Your task to perform on an android device: change your default location settings in chrome Image 0: 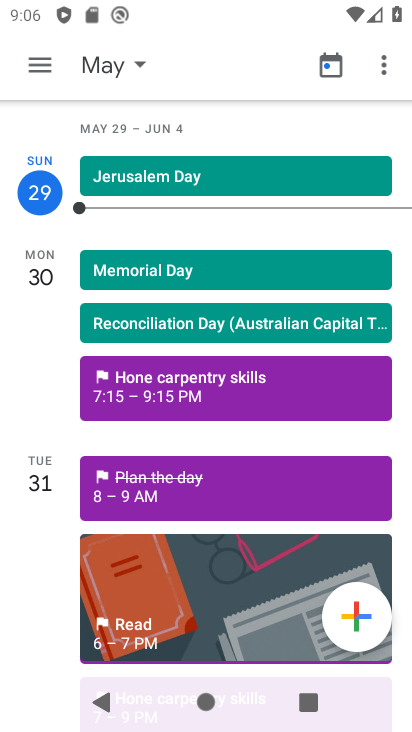
Step 0: press home button
Your task to perform on an android device: change your default location settings in chrome Image 1: 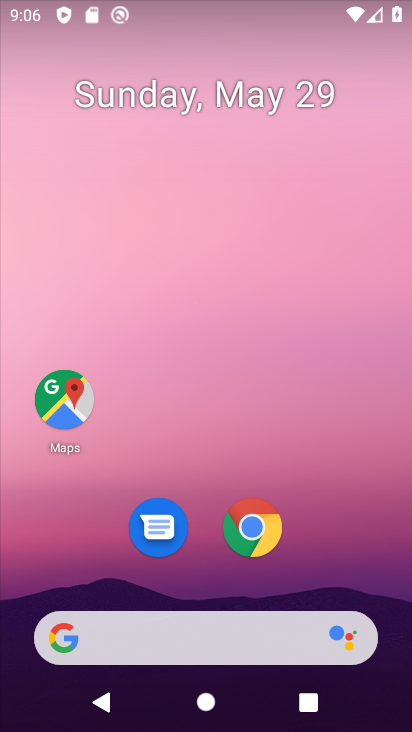
Step 1: click (266, 534)
Your task to perform on an android device: change your default location settings in chrome Image 2: 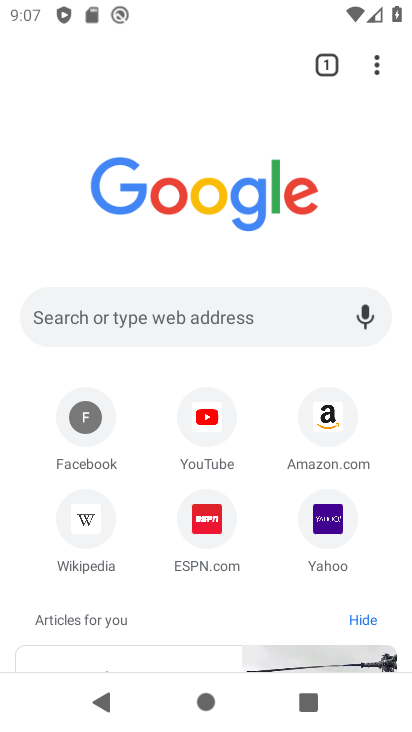
Step 2: drag from (376, 66) to (243, 563)
Your task to perform on an android device: change your default location settings in chrome Image 3: 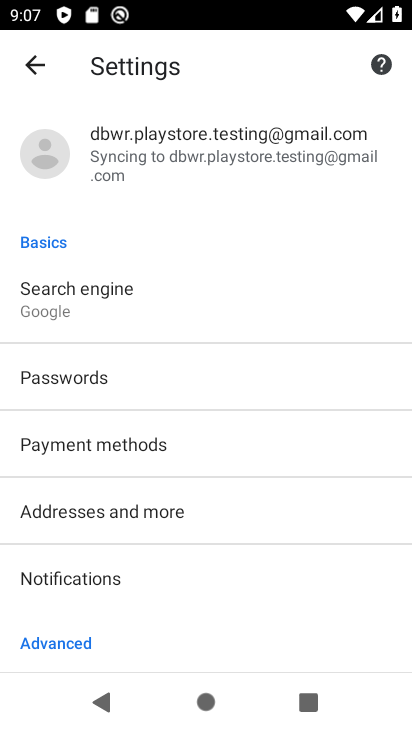
Step 3: drag from (209, 614) to (287, 229)
Your task to perform on an android device: change your default location settings in chrome Image 4: 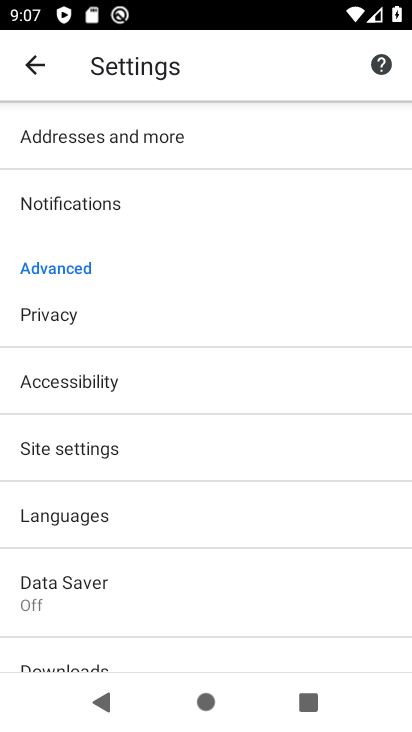
Step 4: click (90, 462)
Your task to perform on an android device: change your default location settings in chrome Image 5: 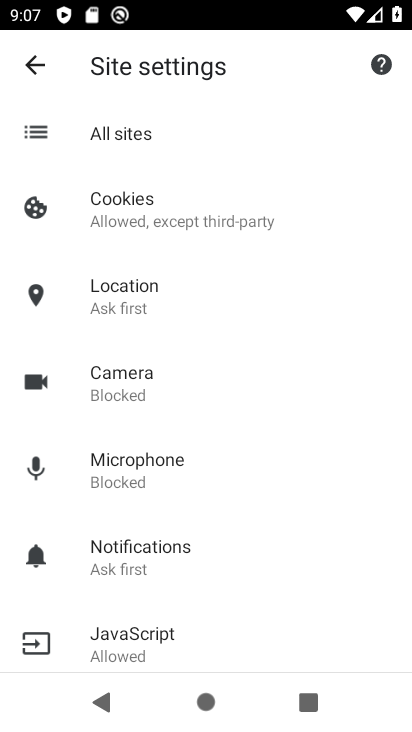
Step 5: click (115, 313)
Your task to perform on an android device: change your default location settings in chrome Image 6: 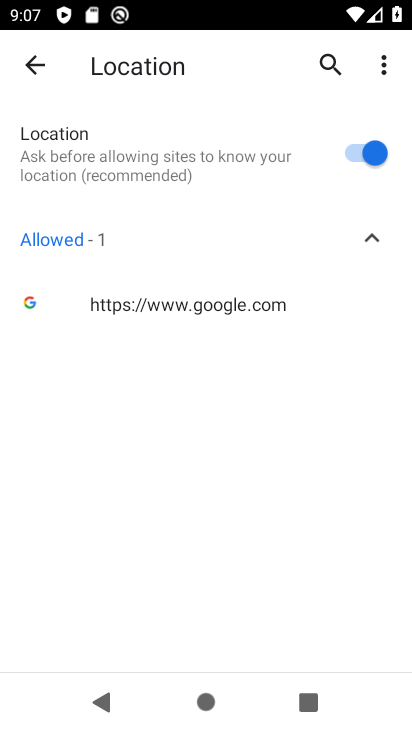
Step 6: click (351, 154)
Your task to perform on an android device: change your default location settings in chrome Image 7: 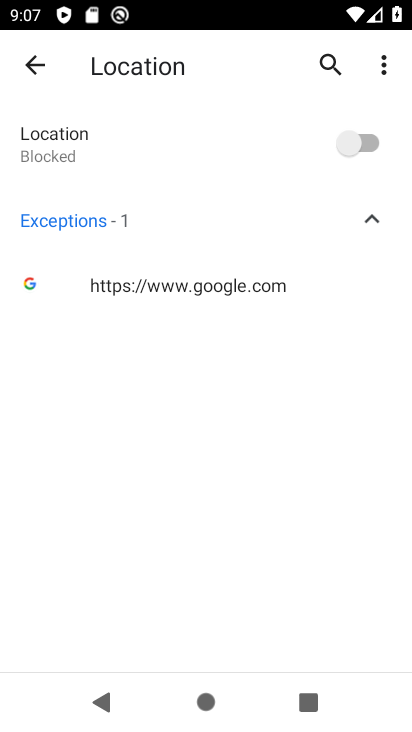
Step 7: task complete